Your task to perform on an android device: open wifi settings Image 0: 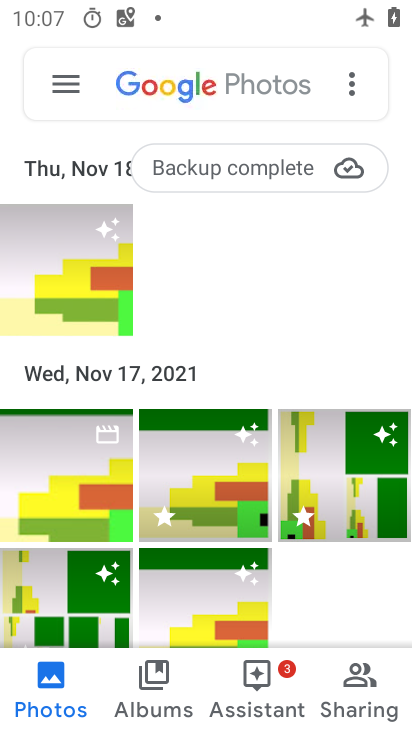
Step 0: press home button
Your task to perform on an android device: open wifi settings Image 1: 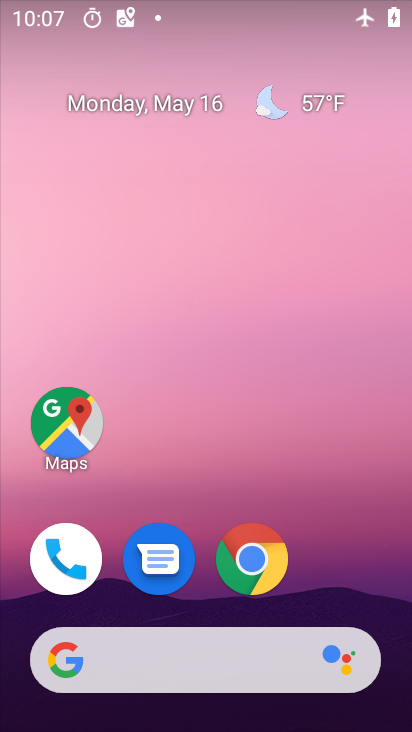
Step 1: drag from (322, 602) to (330, 77)
Your task to perform on an android device: open wifi settings Image 2: 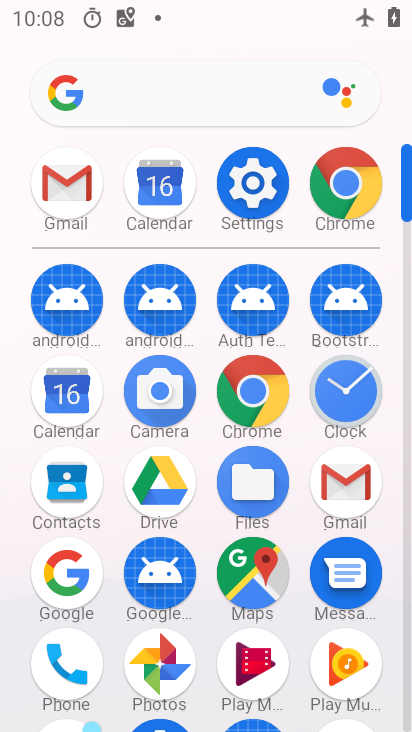
Step 2: click (267, 186)
Your task to perform on an android device: open wifi settings Image 3: 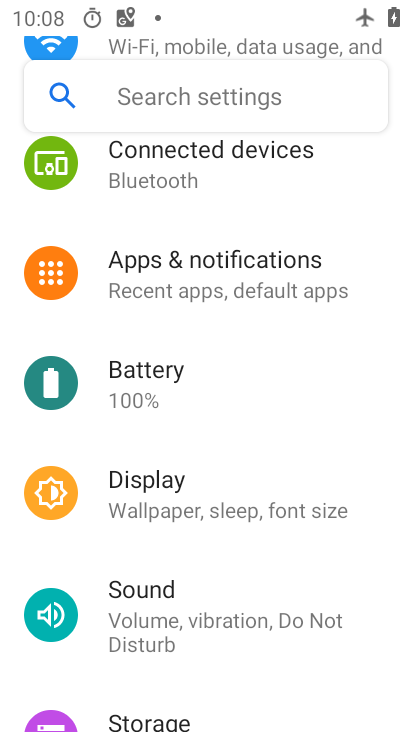
Step 3: drag from (212, 217) to (235, 685)
Your task to perform on an android device: open wifi settings Image 4: 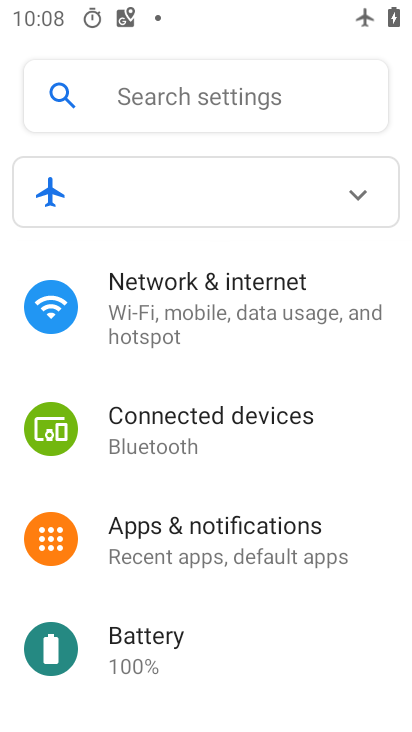
Step 4: click (167, 309)
Your task to perform on an android device: open wifi settings Image 5: 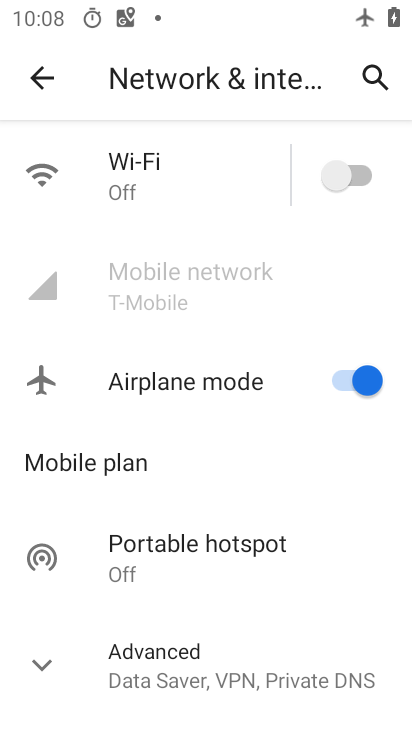
Step 5: click (200, 165)
Your task to perform on an android device: open wifi settings Image 6: 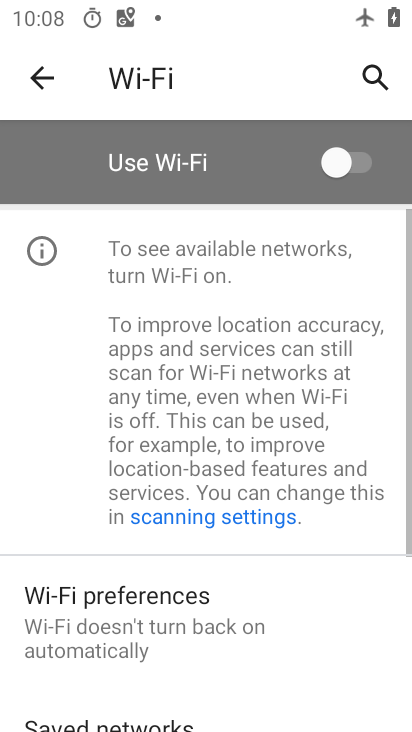
Step 6: click (347, 162)
Your task to perform on an android device: open wifi settings Image 7: 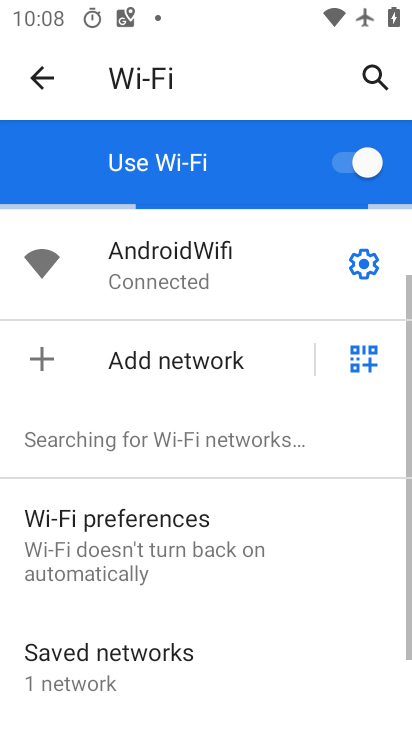
Step 7: click (367, 270)
Your task to perform on an android device: open wifi settings Image 8: 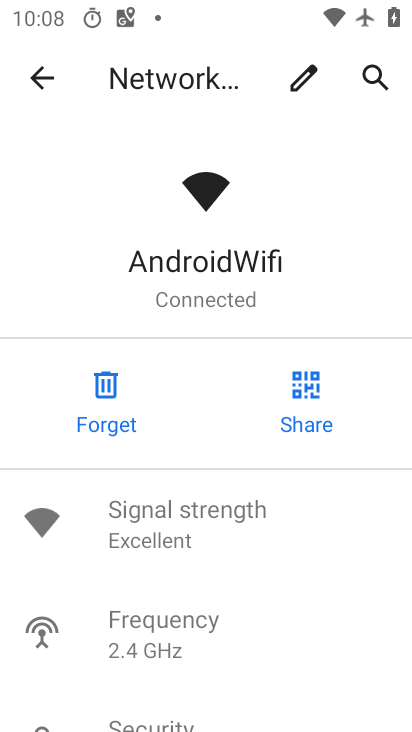
Step 8: task complete